Your task to perform on an android device: Open my contact list Image 0: 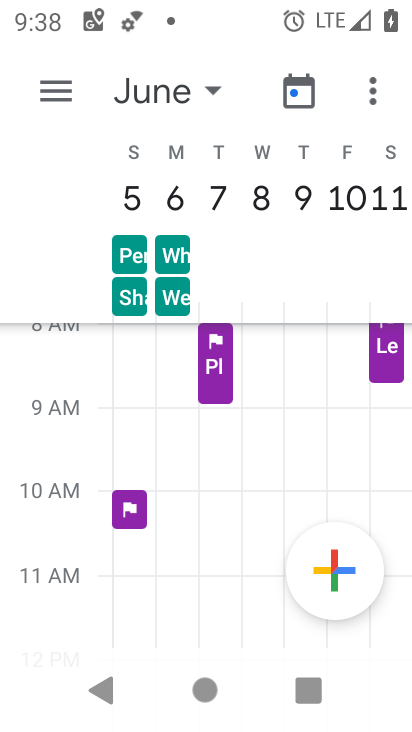
Step 0: press home button
Your task to perform on an android device: Open my contact list Image 1: 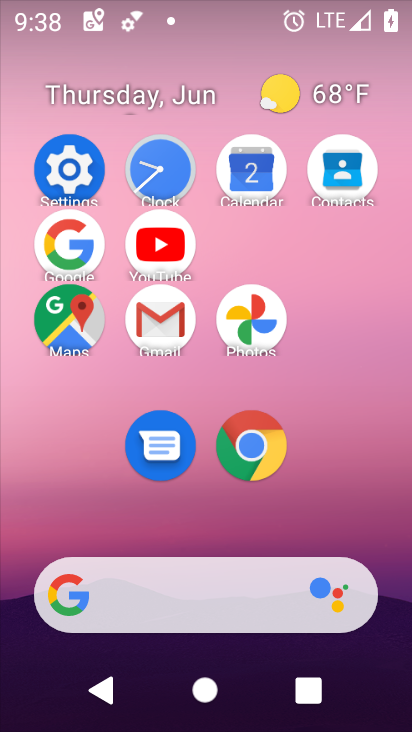
Step 1: click (351, 153)
Your task to perform on an android device: Open my contact list Image 2: 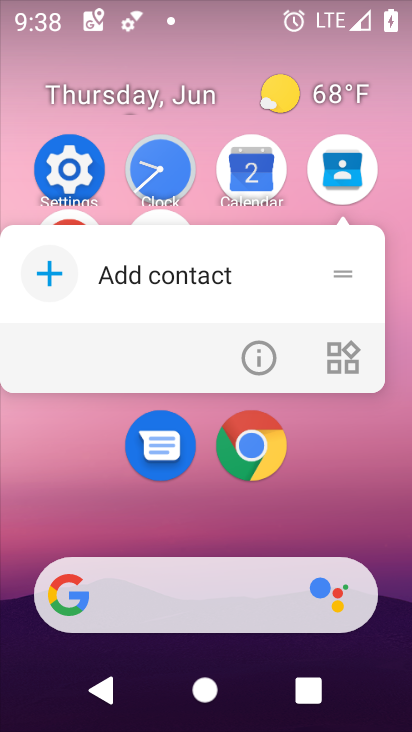
Step 2: click (336, 142)
Your task to perform on an android device: Open my contact list Image 3: 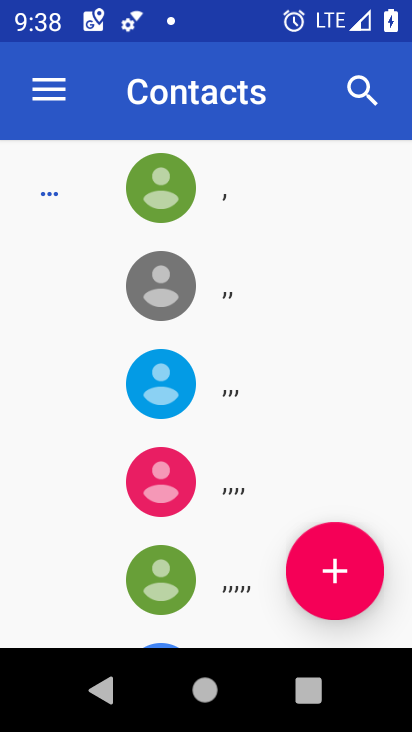
Step 3: task complete